Your task to perform on an android device: Go to Android settings Image 0: 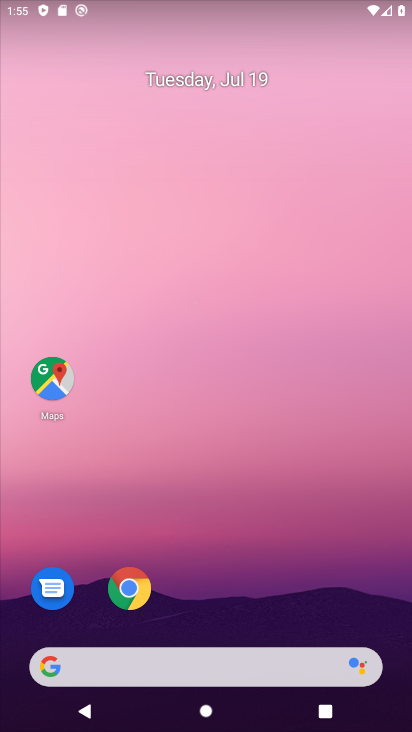
Step 0: drag from (195, 600) to (252, 107)
Your task to perform on an android device: Go to Android settings Image 1: 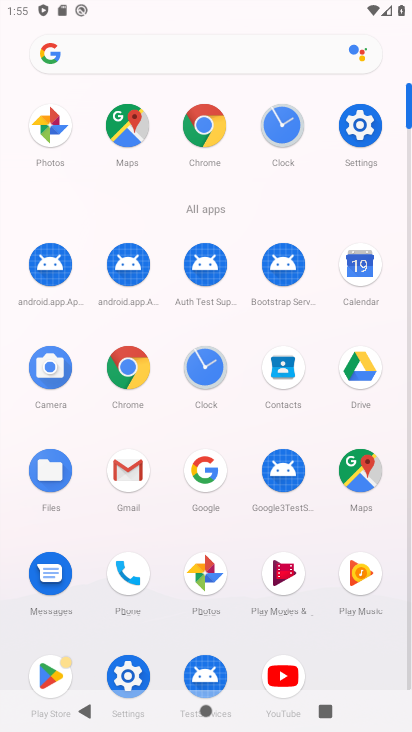
Step 1: click (117, 667)
Your task to perform on an android device: Go to Android settings Image 2: 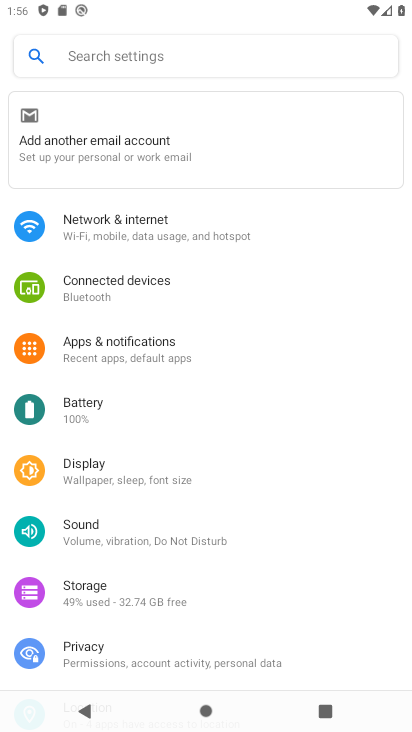
Step 2: task complete